Your task to perform on an android device: visit the assistant section in the google photos Image 0: 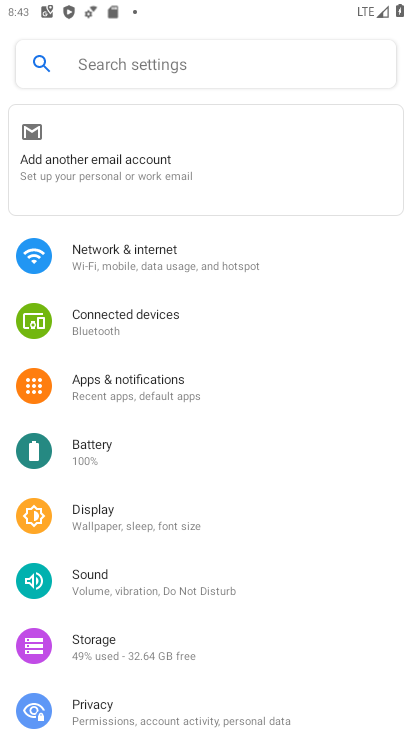
Step 0: press home button
Your task to perform on an android device: visit the assistant section in the google photos Image 1: 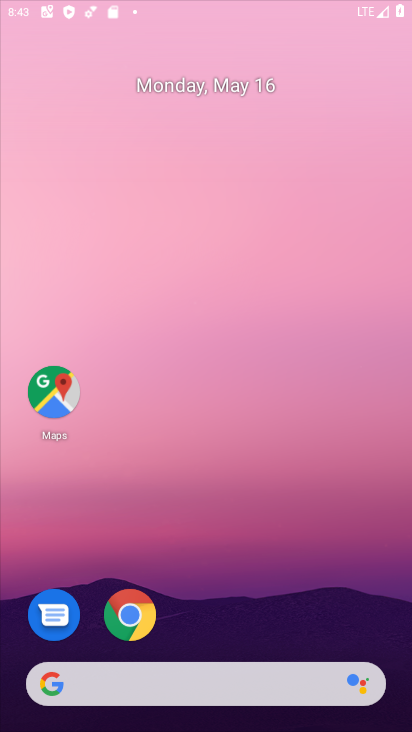
Step 1: press home button
Your task to perform on an android device: visit the assistant section in the google photos Image 2: 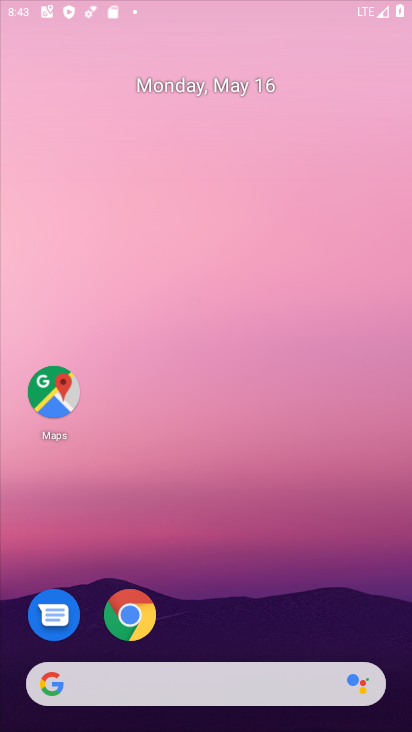
Step 2: press home button
Your task to perform on an android device: visit the assistant section in the google photos Image 3: 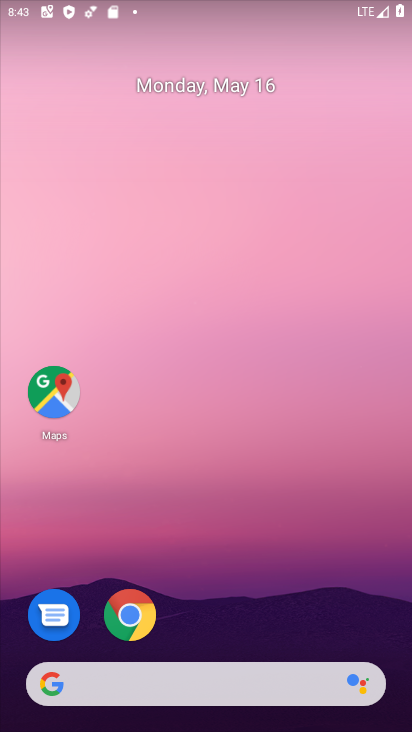
Step 3: drag from (263, 656) to (273, 322)
Your task to perform on an android device: visit the assistant section in the google photos Image 4: 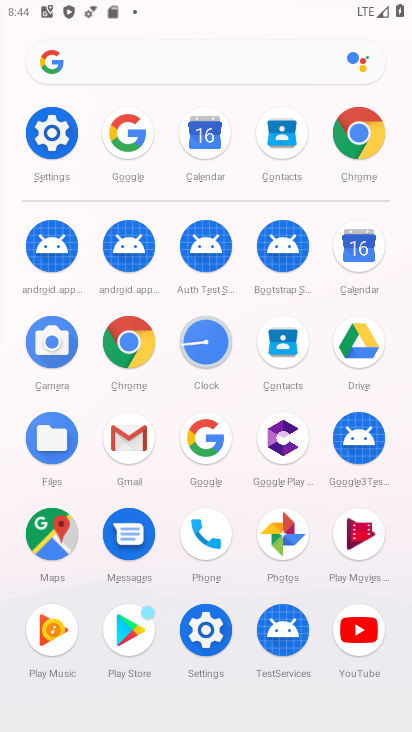
Step 4: click (280, 538)
Your task to perform on an android device: visit the assistant section in the google photos Image 5: 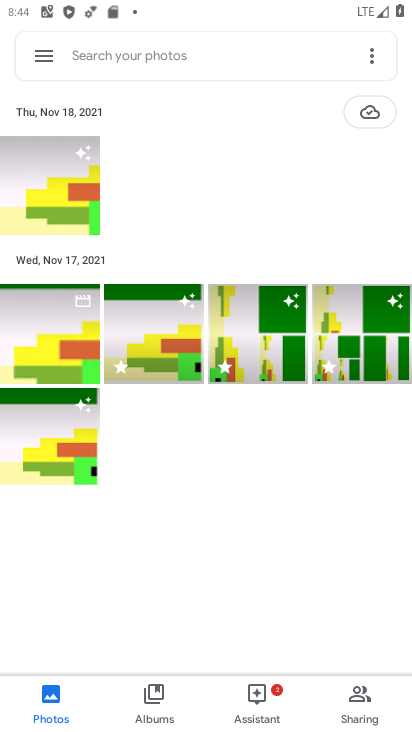
Step 5: click (37, 59)
Your task to perform on an android device: visit the assistant section in the google photos Image 6: 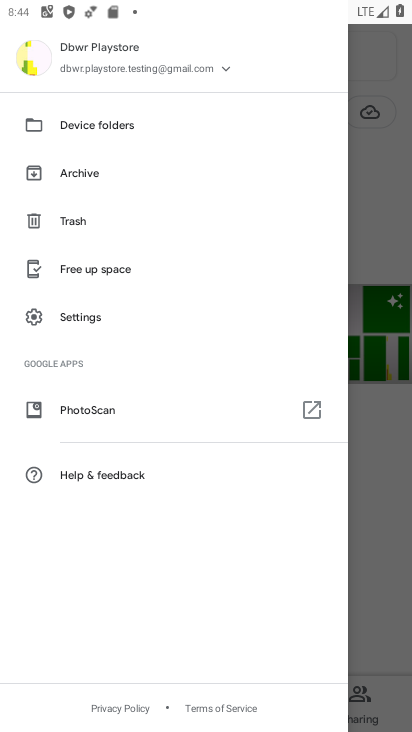
Step 6: click (383, 242)
Your task to perform on an android device: visit the assistant section in the google photos Image 7: 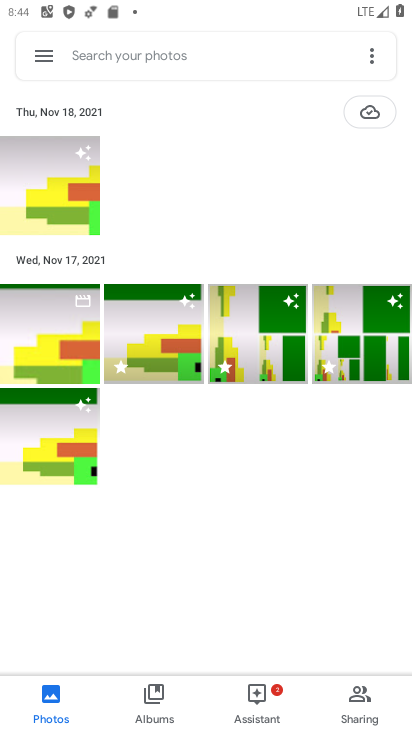
Step 7: click (260, 696)
Your task to perform on an android device: visit the assistant section in the google photos Image 8: 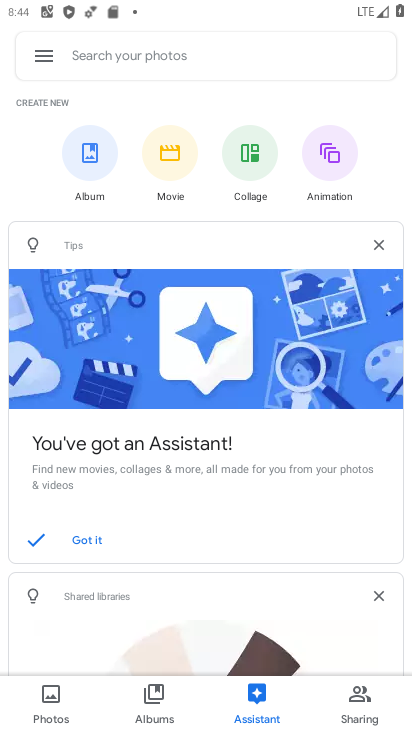
Step 8: task complete